Your task to perform on an android device: Search for vegetarian restaurants on Maps Image 0: 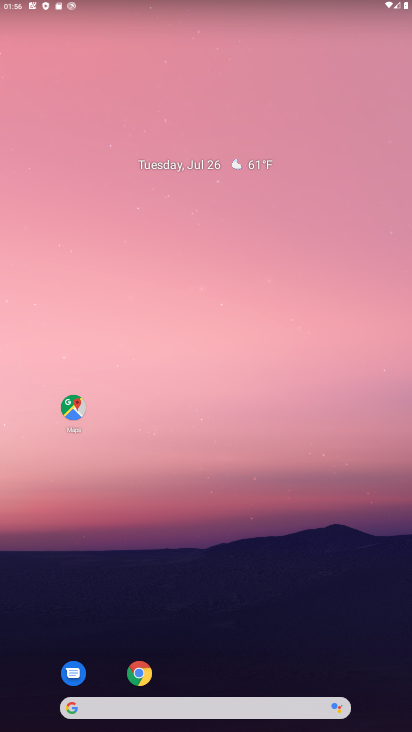
Step 0: drag from (220, 721) to (210, 105)
Your task to perform on an android device: Search for vegetarian restaurants on Maps Image 1: 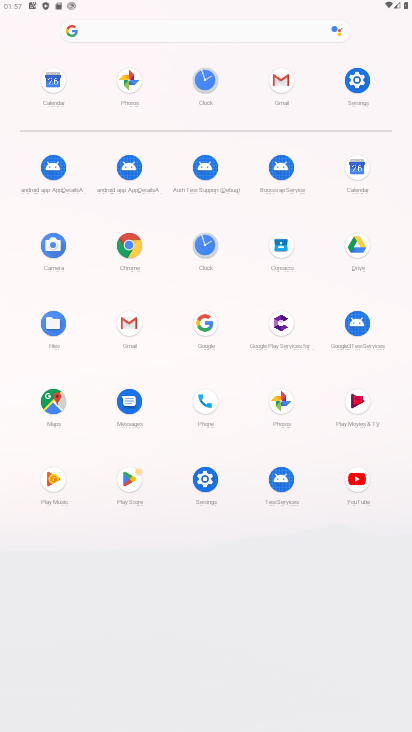
Step 1: click (54, 399)
Your task to perform on an android device: Search for vegetarian restaurants on Maps Image 2: 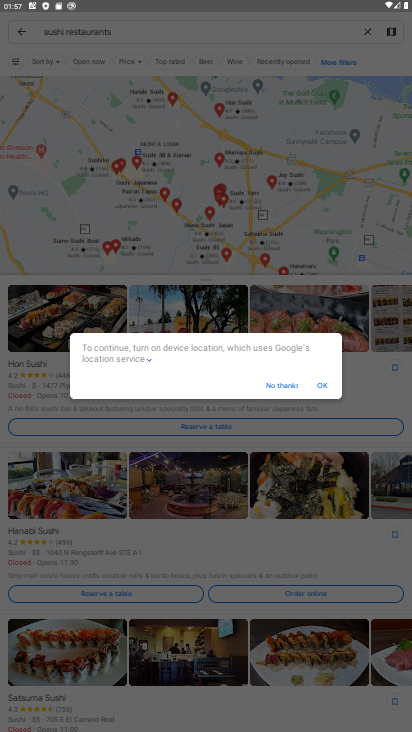
Step 2: click (321, 384)
Your task to perform on an android device: Search for vegetarian restaurants on Maps Image 3: 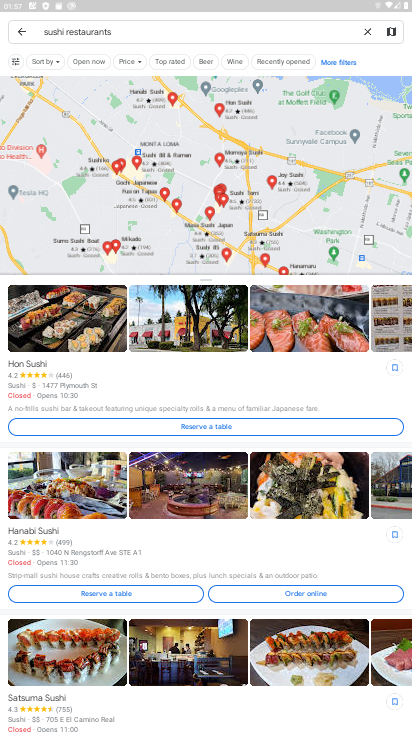
Step 3: click (171, 29)
Your task to perform on an android device: Search for vegetarian restaurants on Maps Image 4: 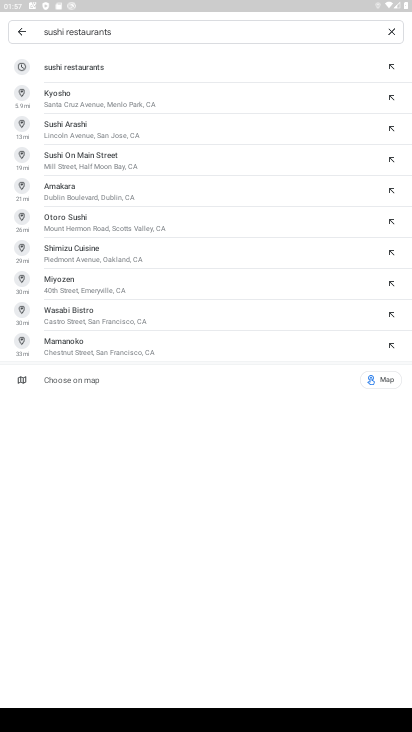
Step 4: click (389, 27)
Your task to perform on an android device: Search for vegetarian restaurants on Maps Image 5: 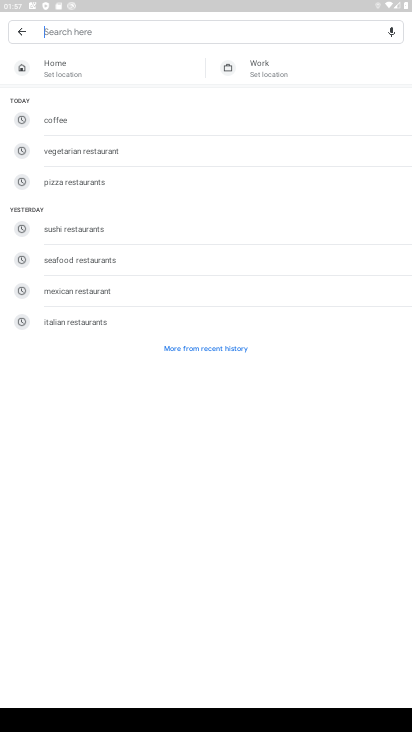
Step 5: type "vegetarian restaurants"
Your task to perform on an android device: Search for vegetarian restaurants on Maps Image 6: 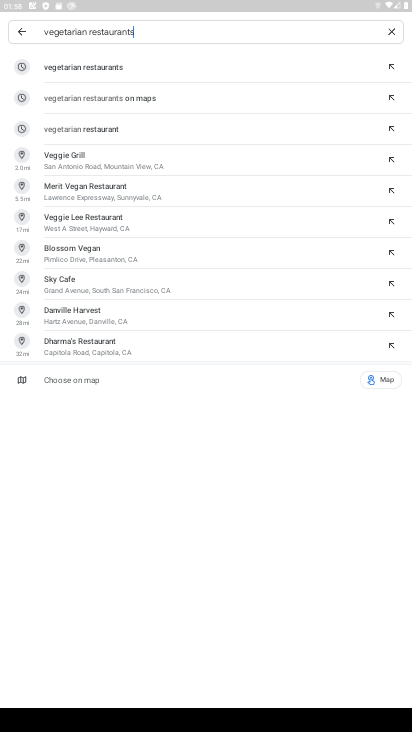
Step 6: click (110, 63)
Your task to perform on an android device: Search for vegetarian restaurants on Maps Image 7: 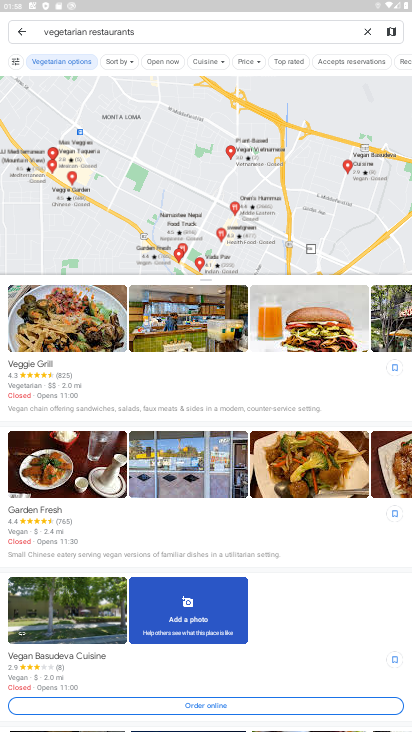
Step 7: task complete